Your task to perform on an android device: Turn on the flashlight Image 0: 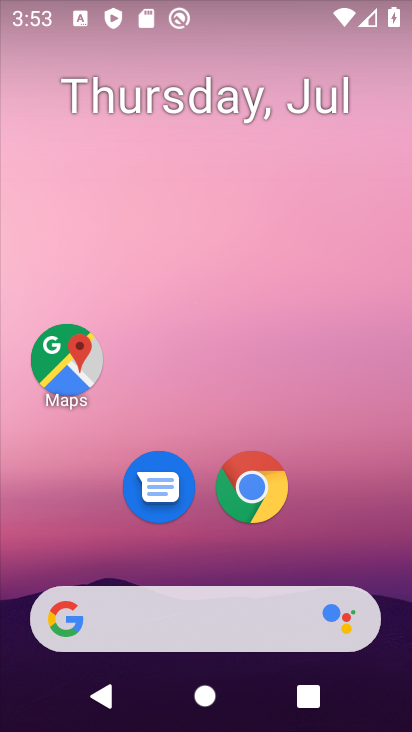
Step 0: drag from (173, 637) to (255, 163)
Your task to perform on an android device: Turn on the flashlight Image 1: 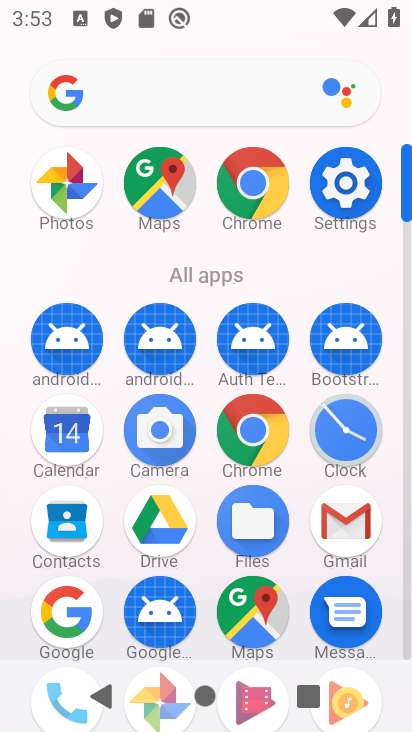
Step 1: task complete